Your task to perform on an android device: turn off smart reply in the gmail app Image 0: 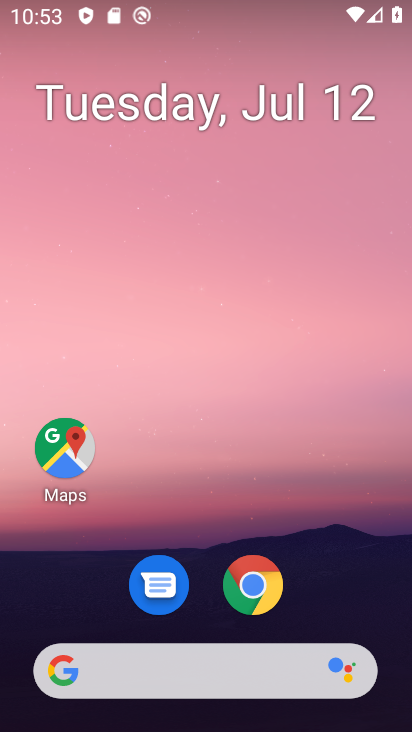
Step 0: drag from (324, 598) to (307, 92)
Your task to perform on an android device: turn off smart reply in the gmail app Image 1: 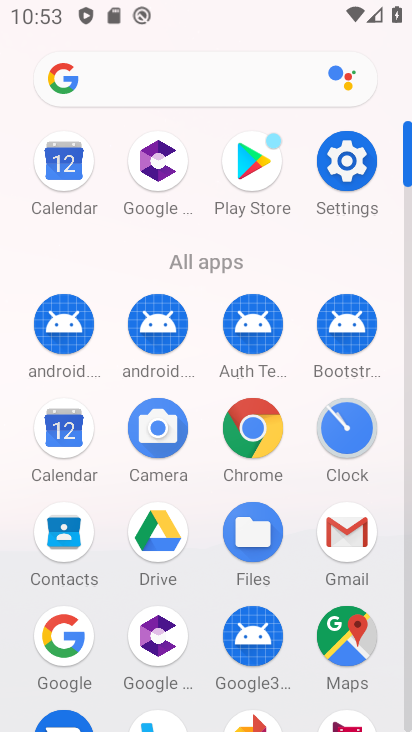
Step 1: click (345, 535)
Your task to perform on an android device: turn off smart reply in the gmail app Image 2: 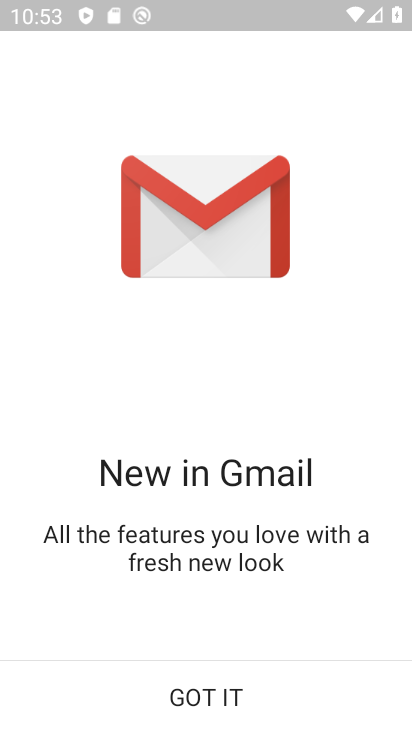
Step 2: click (219, 690)
Your task to perform on an android device: turn off smart reply in the gmail app Image 3: 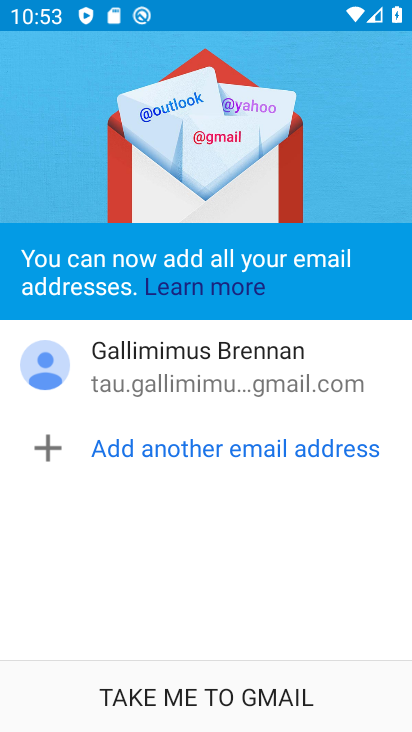
Step 3: click (219, 692)
Your task to perform on an android device: turn off smart reply in the gmail app Image 4: 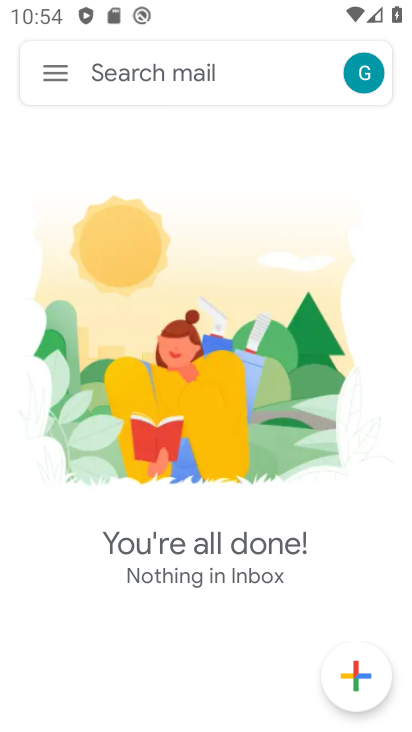
Step 4: click (52, 85)
Your task to perform on an android device: turn off smart reply in the gmail app Image 5: 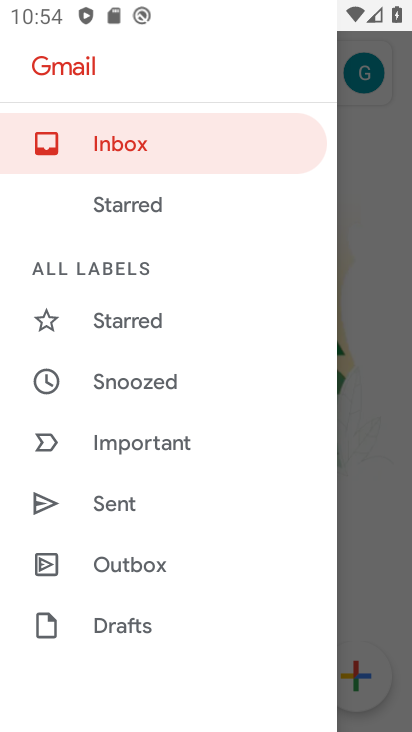
Step 5: drag from (176, 504) to (204, 2)
Your task to perform on an android device: turn off smart reply in the gmail app Image 6: 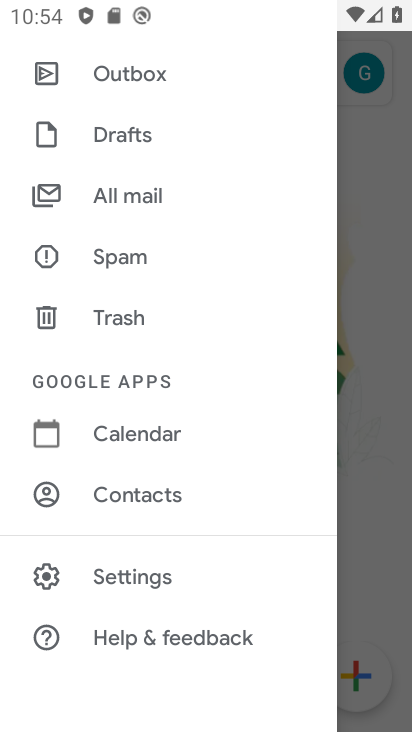
Step 6: click (155, 575)
Your task to perform on an android device: turn off smart reply in the gmail app Image 7: 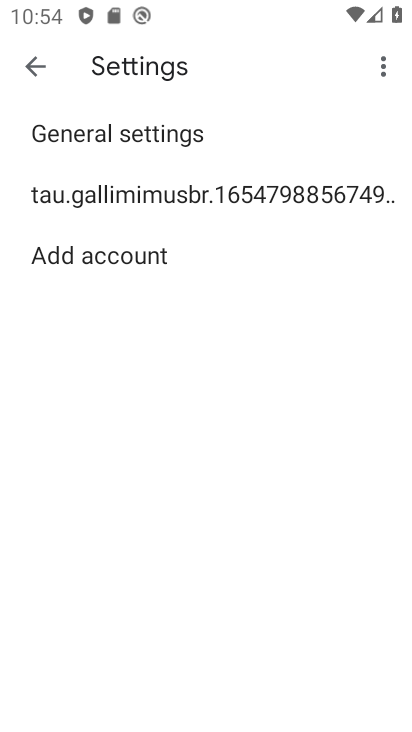
Step 7: click (193, 198)
Your task to perform on an android device: turn off smart reply in the gmail app Image 8: 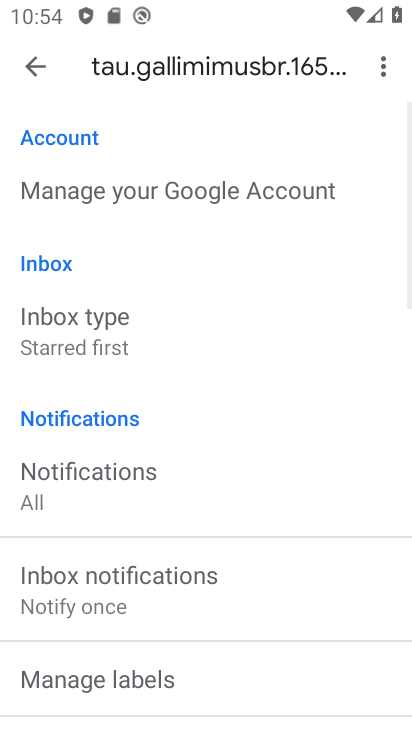
Step 8: drag from (270, 619) to (288, 122)
Your task to perform on an android device: turn off smart reply in the gmail app Image 9: 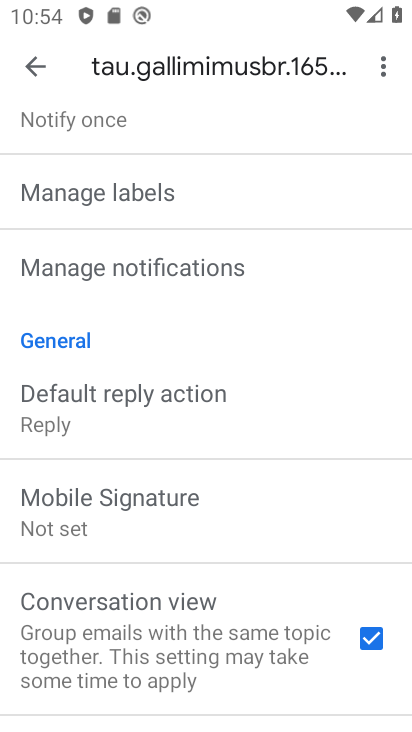
Step 9: drag from (245, 506) to (270, 119)
Your task to perform on an android device: turn off smart reply in the gmail app Image 10: 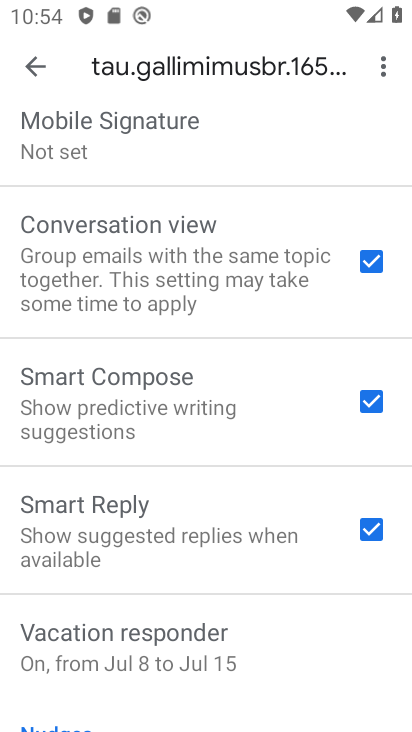
Step 10: click (370, 526)
Your task to perform on an android device: turn off smart reply in the gmail app Image 11: 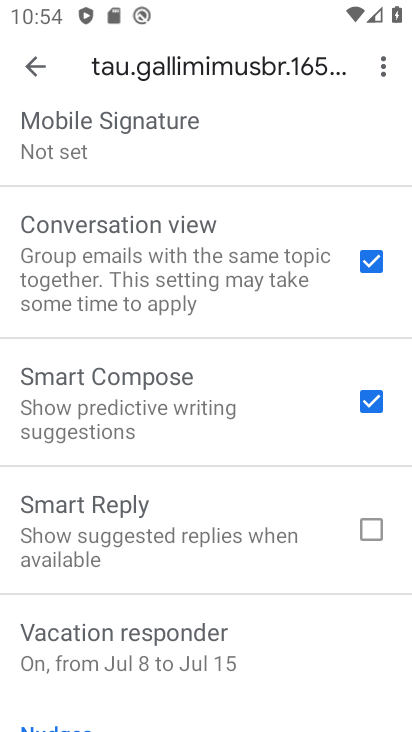
Step 11: task complete